Your task to perform on an android device: Open Google Image 0: 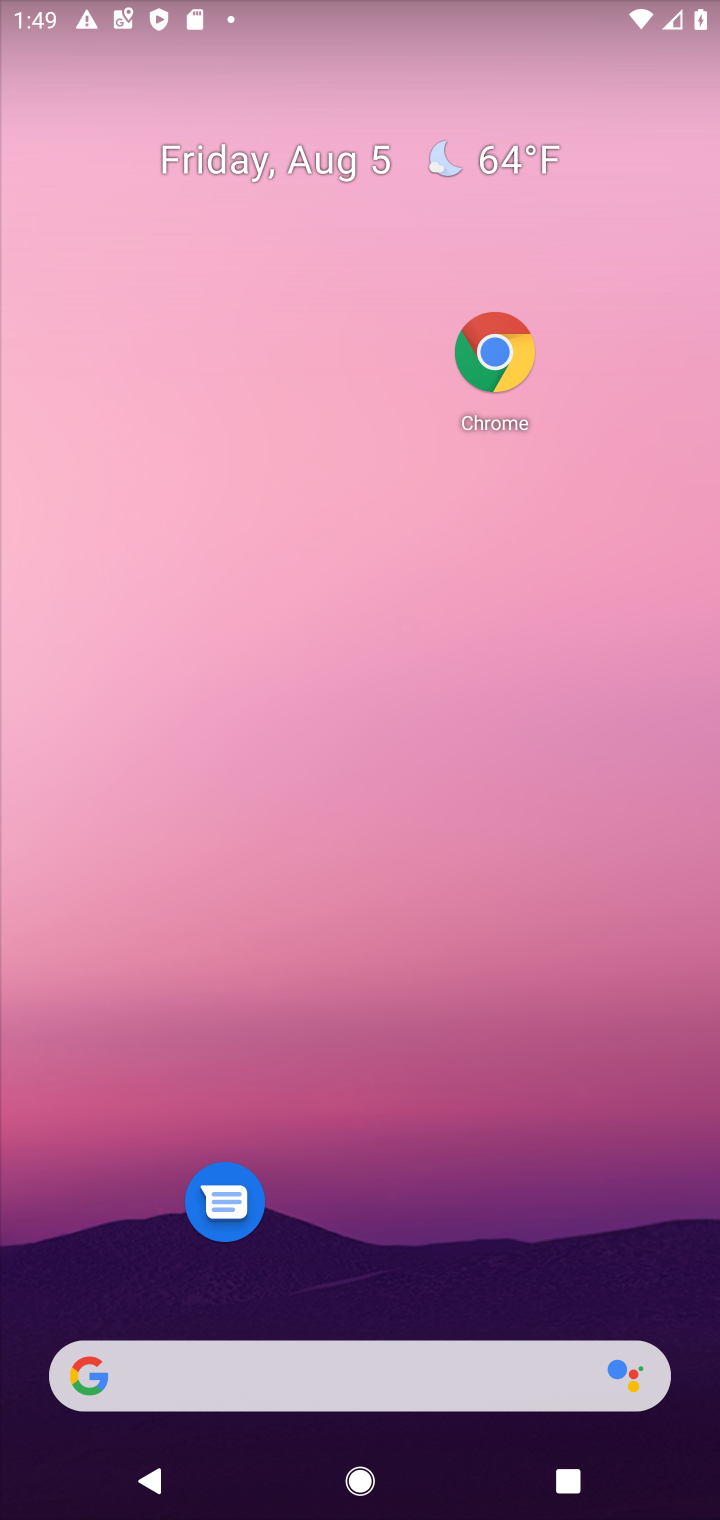
Step 0: drag from (345, 439) to (343, 215)
Your task to perform on an android device: Open Google Image 1: 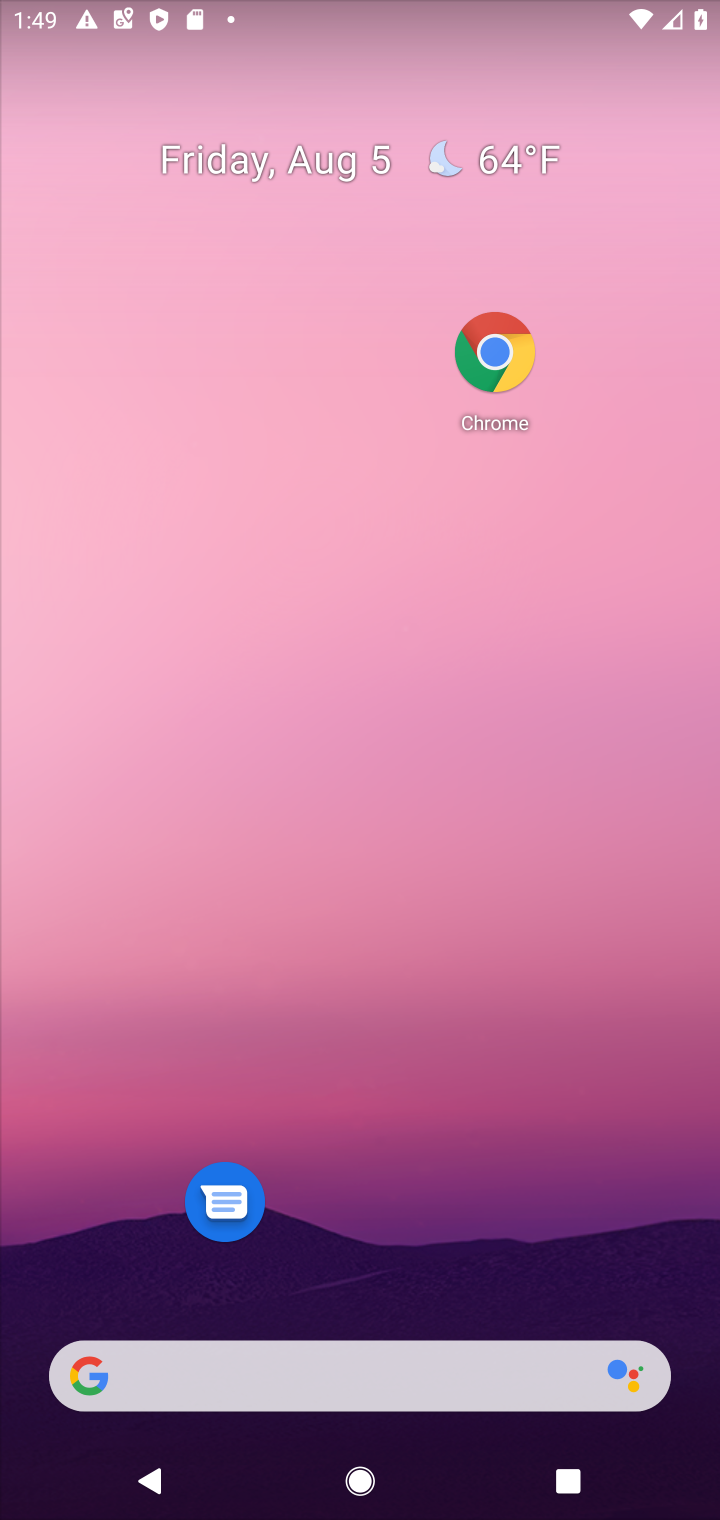
Step 1: drag from (438, 1120) to (445, 90)
Your task to perform on an android device: Open Google Image 2: 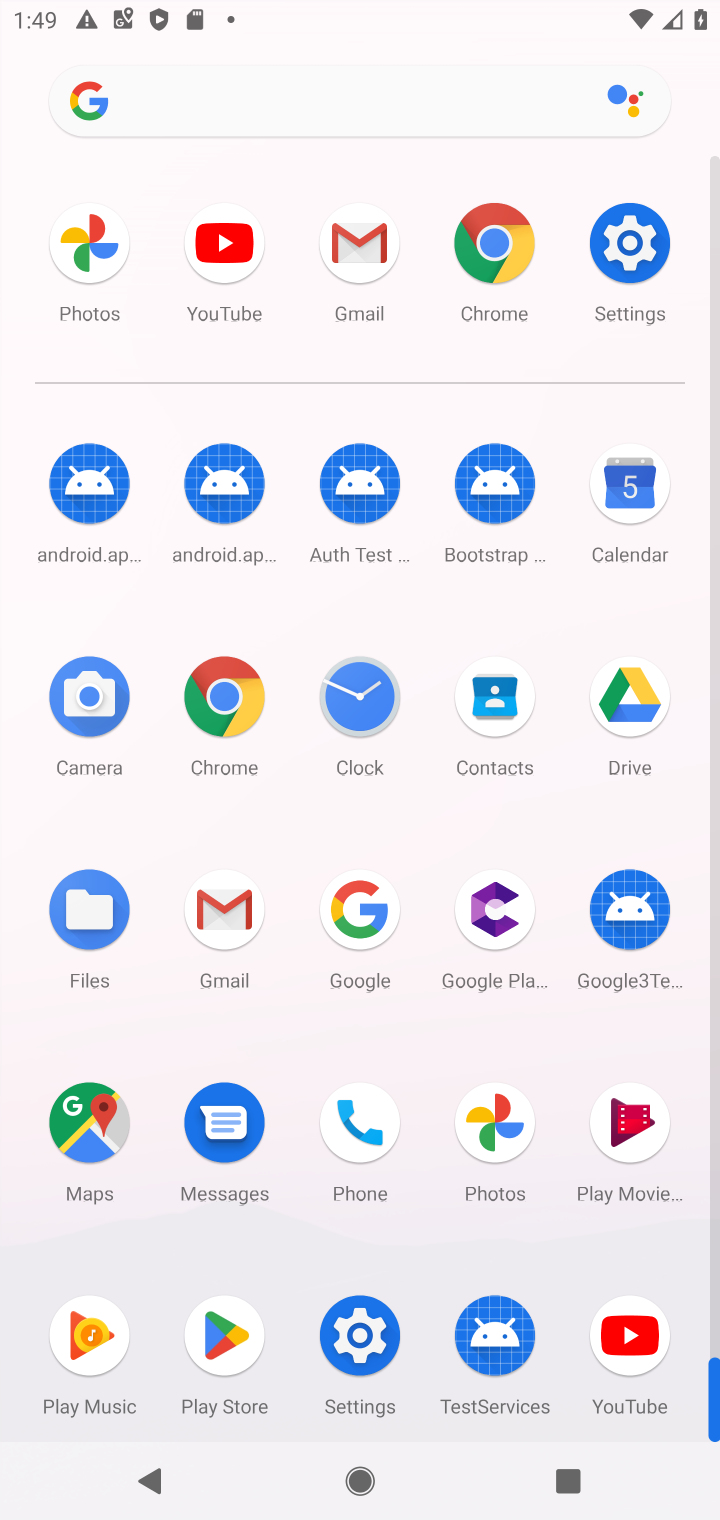
Step 2: click (348, 908)
Your task to perform on an android device: Open Google Image 3: 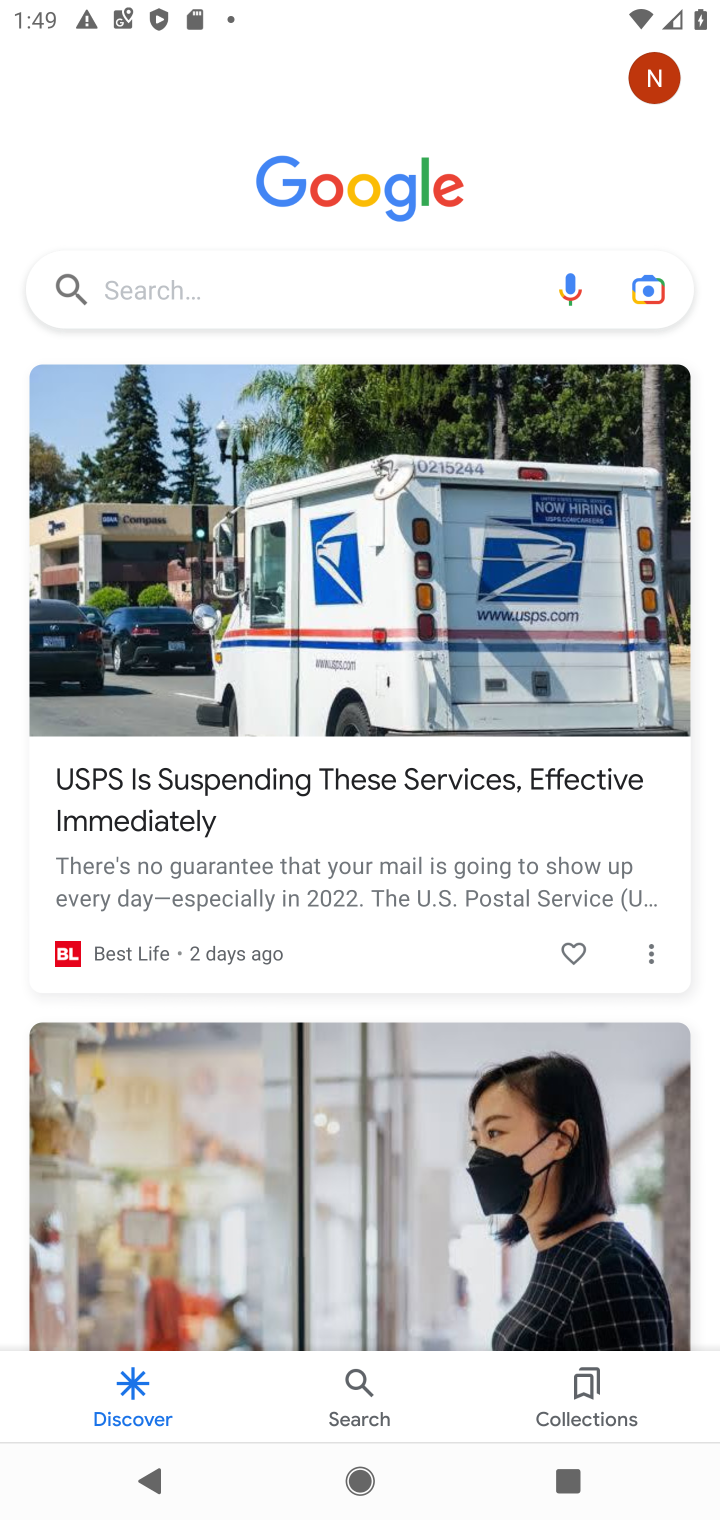
Step 3: task complete